Your task to perform on an android device: move a message to another label in the gmail app Image 0: 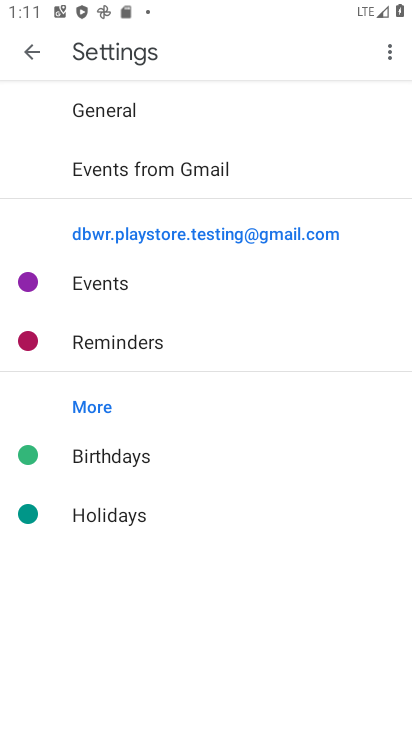
Step 0: press home button
Your task to perform on an android device: move a message to another label in the gmail app Image 1: 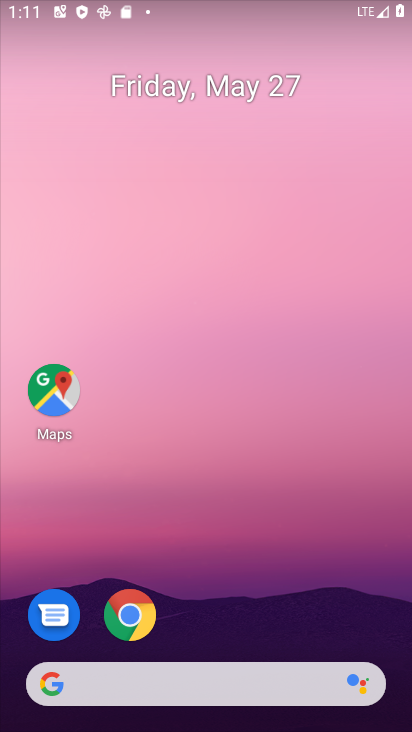
Step 1: drag from (294, 646) to (314, 123)
Your task to perform on an android device: move a message to another label in the gmail app Image 2: 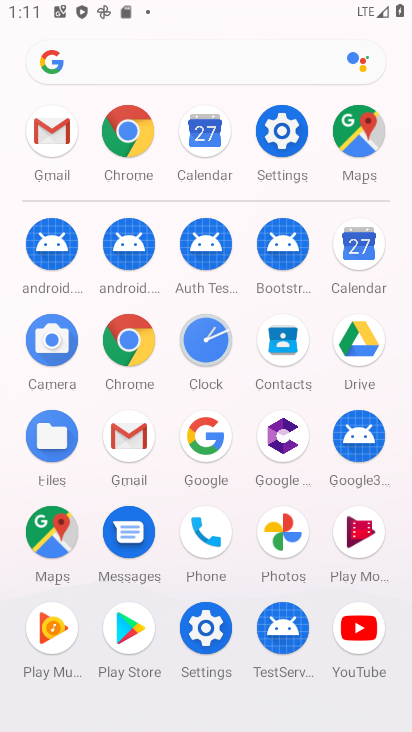
Step 2: click (126, 449)
Your task to perform on an android device: move a message to another label in the gmail app Image 3: 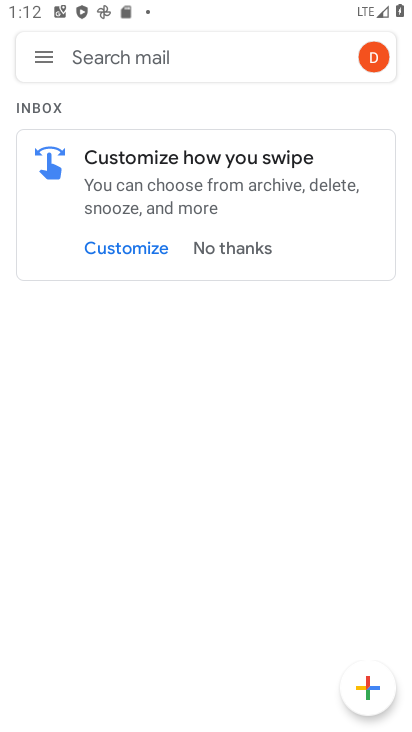
Step 3: task complete